Your task to perform on an android device: all mails in gmail Image 0: 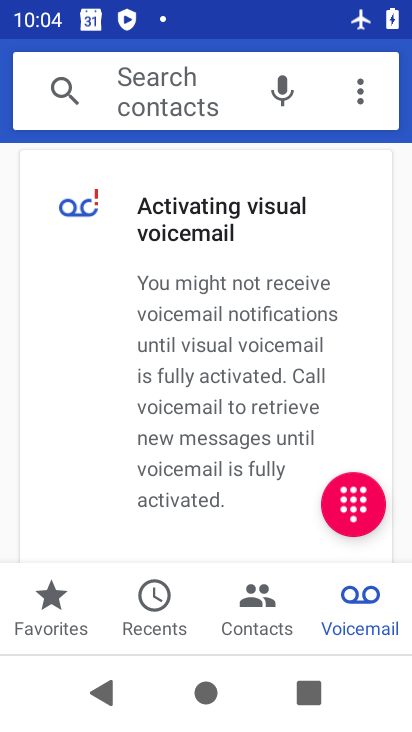
Step 0: press home button
Your task to perform on an android device: all mails in gmail Image 1: 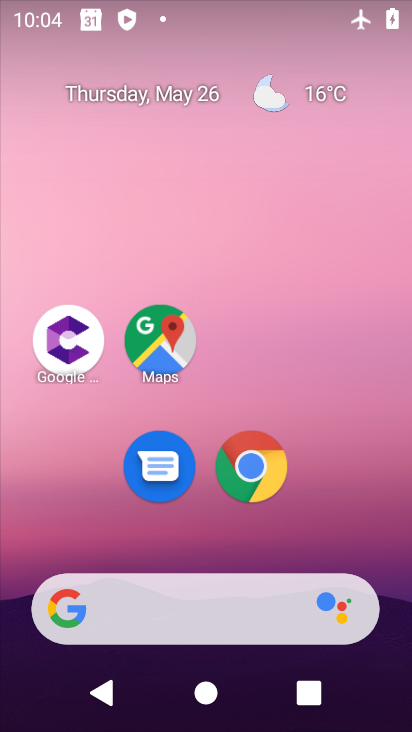
Step 1: drag from (323, 512) to (162, 60)
Your task to perform on an android device: all mails in gmail Image 2: 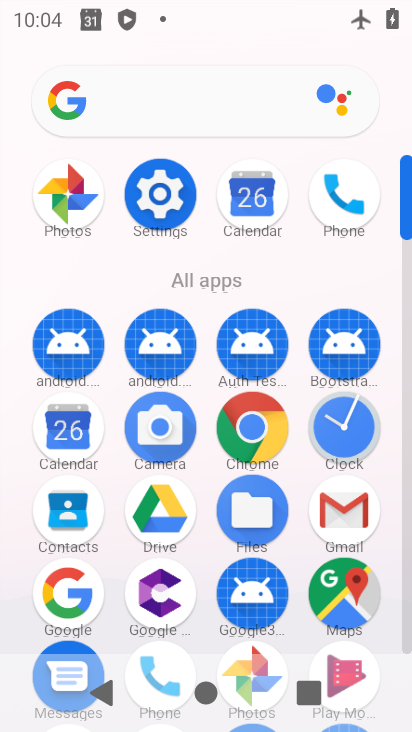
Step 2: click (339, 496)
Your task to perform on an android device: all mails in gmail Image 3: 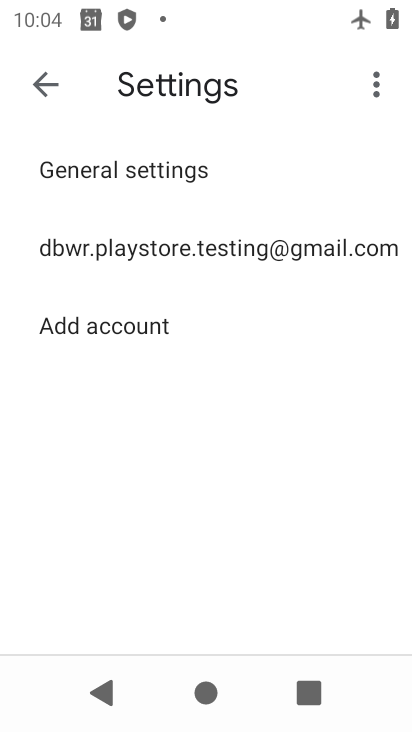
Step 3: click (38, 79)
Your task to perform on an android device: all mails in gmail Image 4: 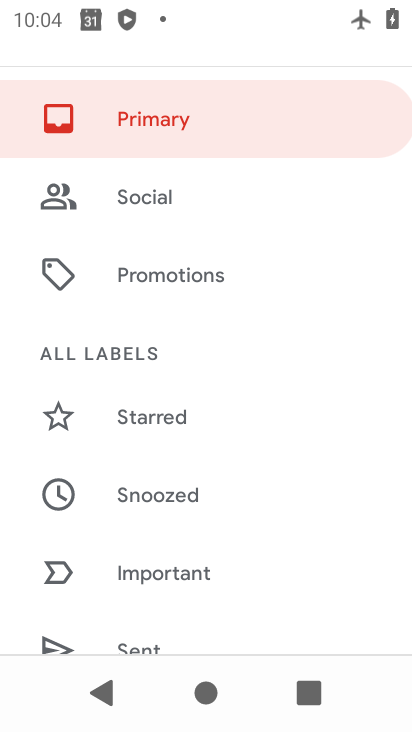
Step 4: drag from (192, 585) to (167, 272)
Your task to perform on an android device: all mails in gmail Image 5: 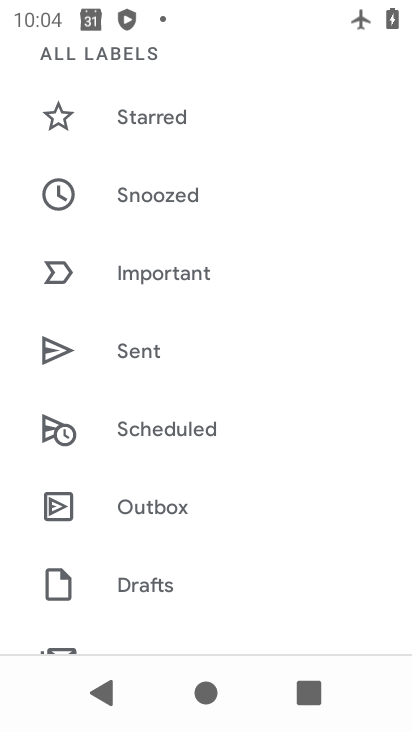
Step 5: drag from (205, 546) to (198, 216)
Your task to perform on an android device: all mails in gmail Image 6: 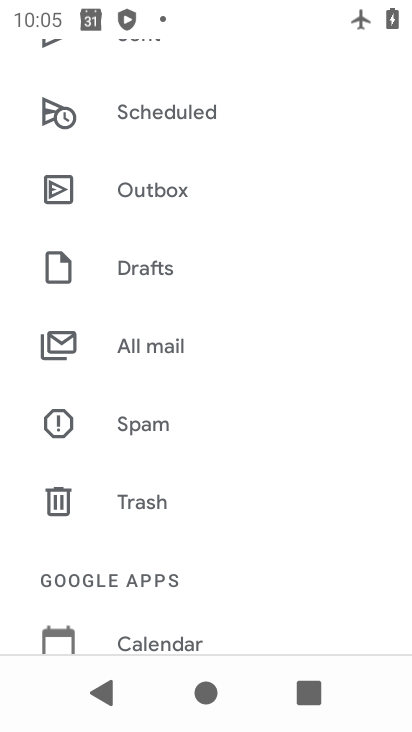
Step 6: click (140, 344)
Your task to perform on an android device: all mails in gmail Image 7: 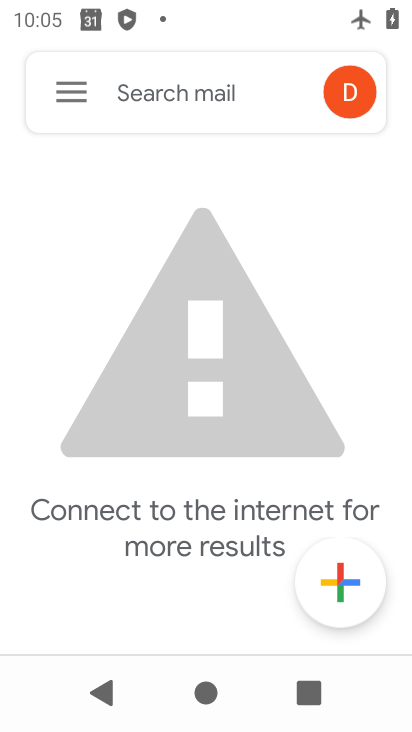
Step 7: task complete